Your task to perform on an android device: turn on the 24-hour format for clock Image 0: 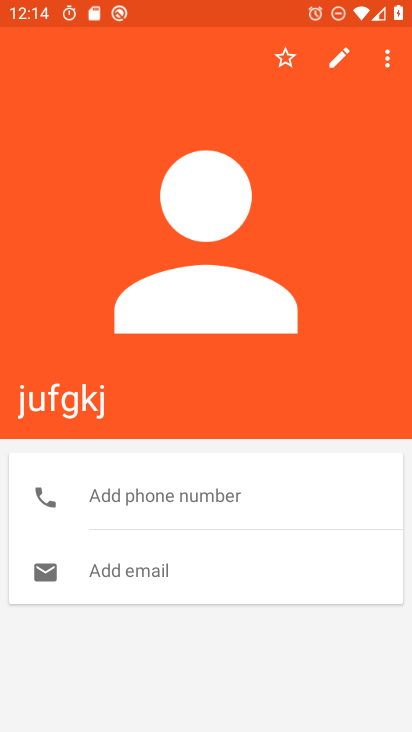
Step 0: press home button
Your task to perform on an android device: turn on the 24-hour format for clock Image 1: 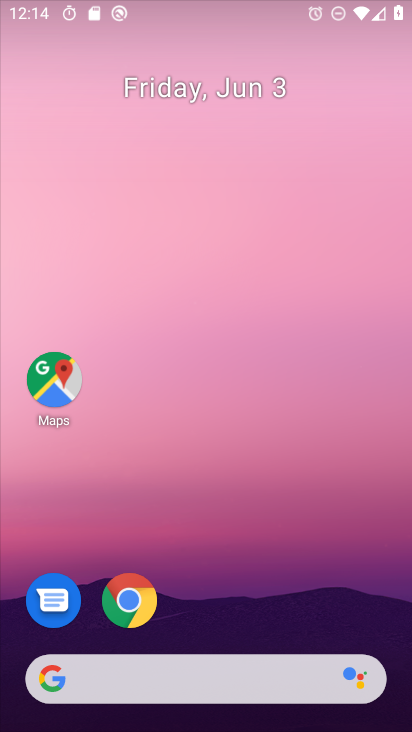
Step 1: drag from (237, 614) to (235, 81)
Your task to perform on an android device: turn on the 24-hour format for clock Image 2: 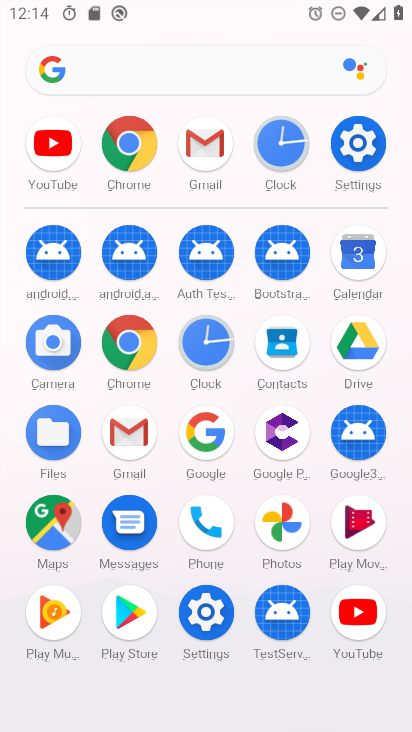
Step 2: click (295, 143)
Your task to perform on an android device: turn on the 24-hour format for clock Image 3: 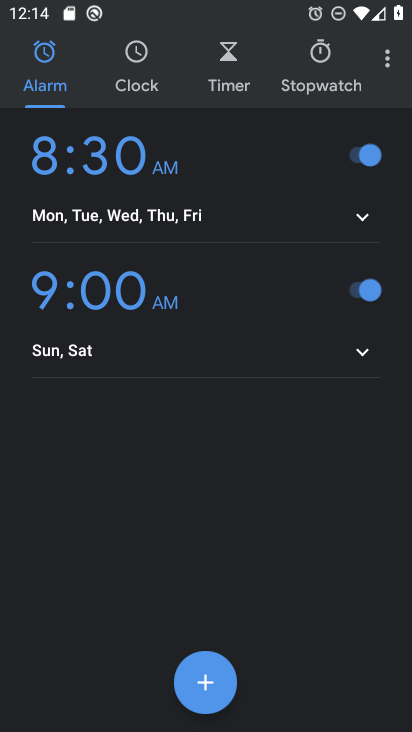
Step 3: click (368, 55)
Your task to perform on an android device: turn on the 24-hour format for clock Image 4: 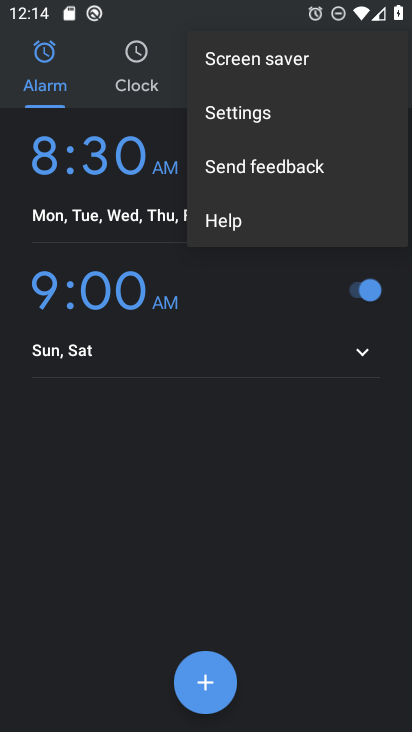
Step 4: click (268, 118)
Your task to perform on an android device: turn on the 24-hour format for clock Image 5: 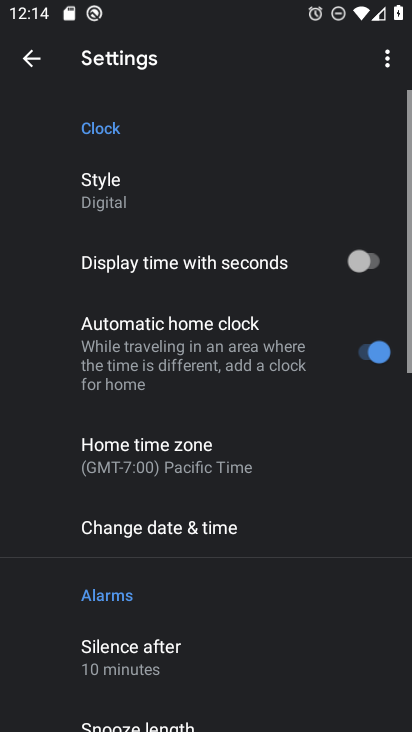
Step 5: click (193, 524)
Your task to perform on an android device: turn on the 24-hour format for clock Image 6: 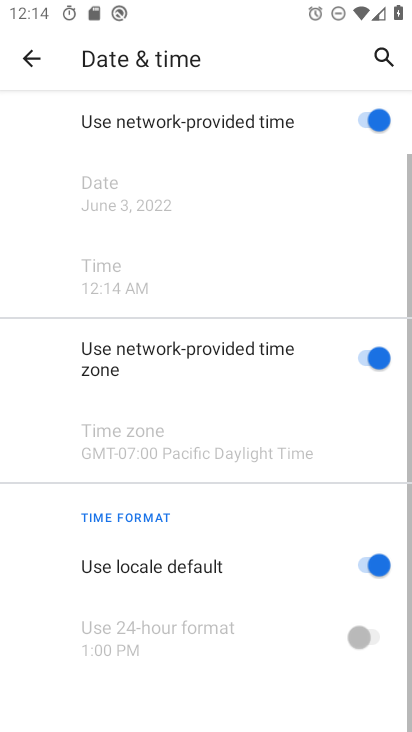
Step 6: drag from (251, 554) to (254, 280)
Your task to perform on an android device: turn on the 24-hour format for clock Image 7: 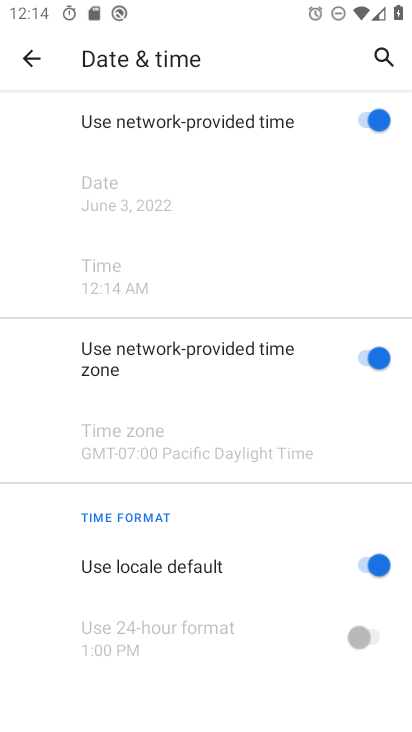
Step 7: click (372, 582)
Your task to perform on an android device: turn on the 24-hour format for clock Image 8: 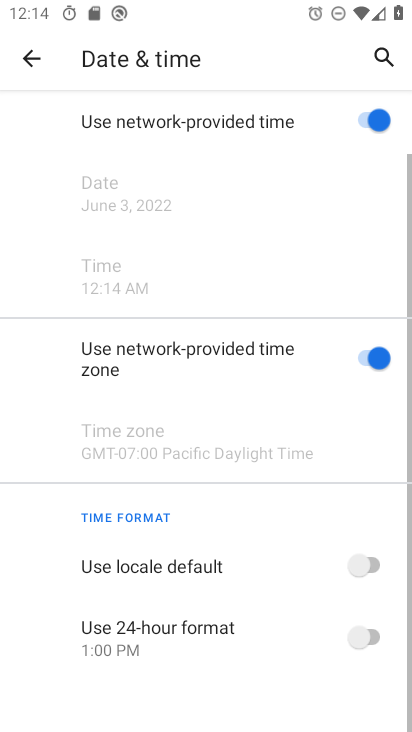
Step 8: click (361, 643)
Your task to perform on an android device: turn on the 24-hour format for clock Image 9: 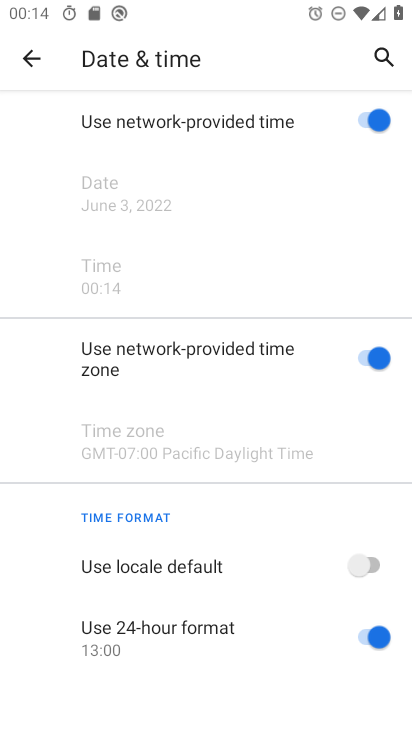
Step 9: task complete